Your task to perform on an android device: open chrome privacy settings Image 0: 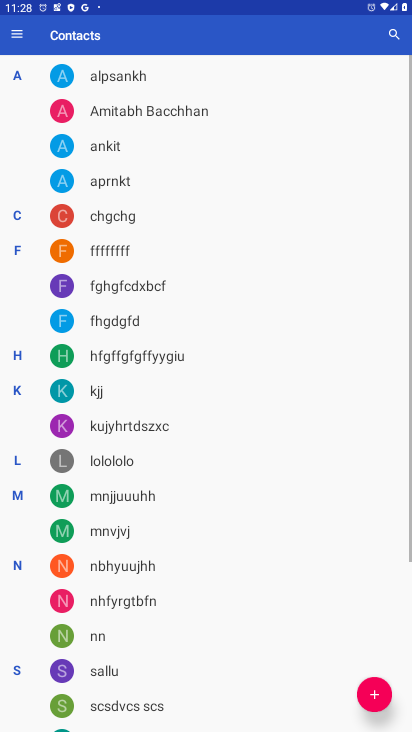
Step 0: drag from (218, 693) to (248, 655)
Your task to perform on an android device: open chrome privacy settings Image 1: 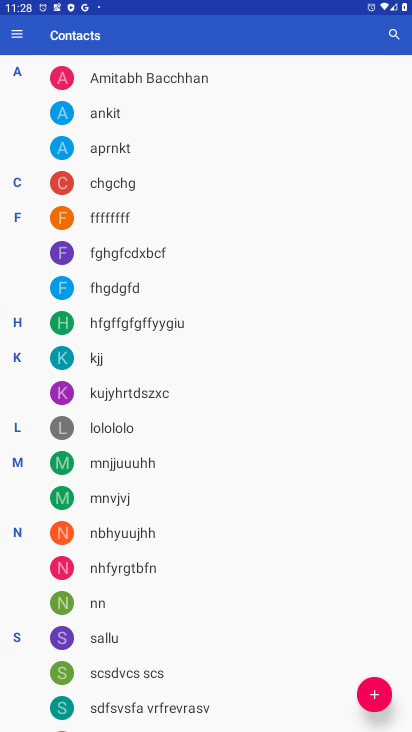
Step 1: press home button
Your task to perform on an android device: open chrome privacy settings Image 2: 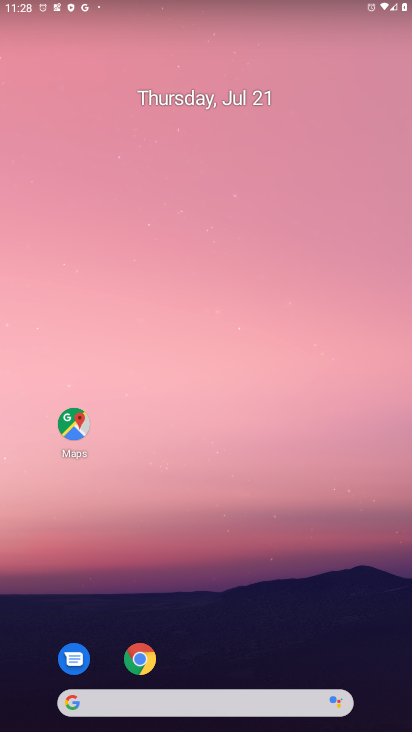
Step 2: click (141, 659)
Your task to perform on an android device: open chrome privacy settings Image 3: 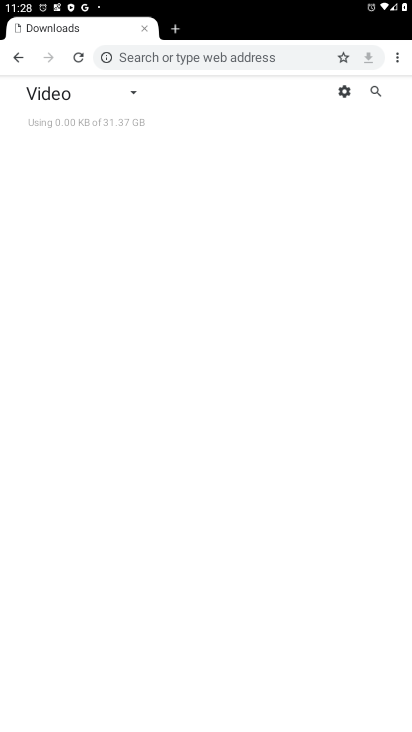
Step 3: click (399, 58)
Your task to perform on an android device: open chrome privacy settings Image 4: 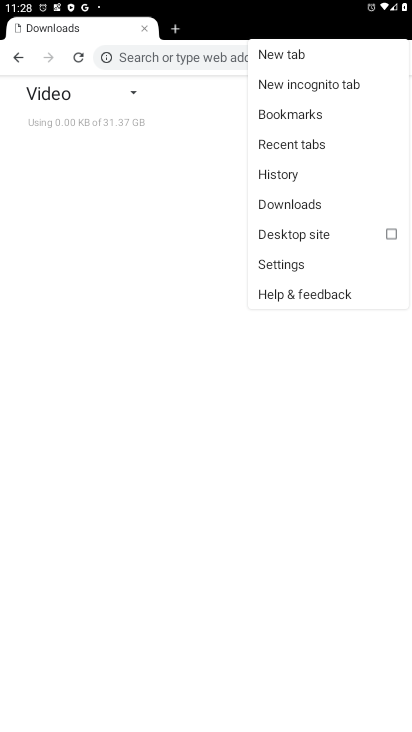
Step 4: click (291, 263)
Your task to perform on an android device: open chrome privacy settings Image 5: 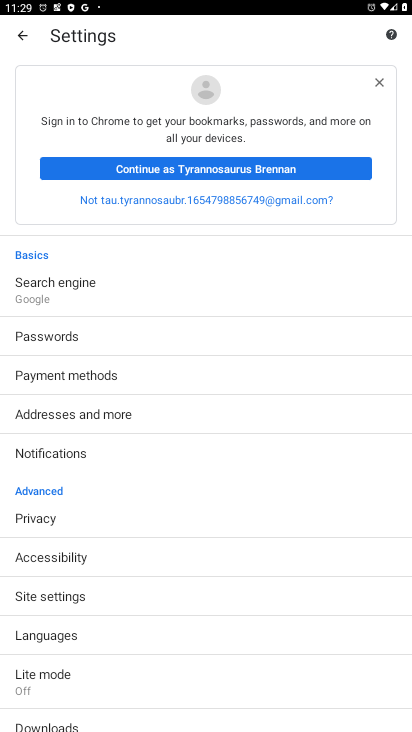
Step 5: click (42, 518)
Your task to perform on an android device: open chrome privacy settings Image 6: 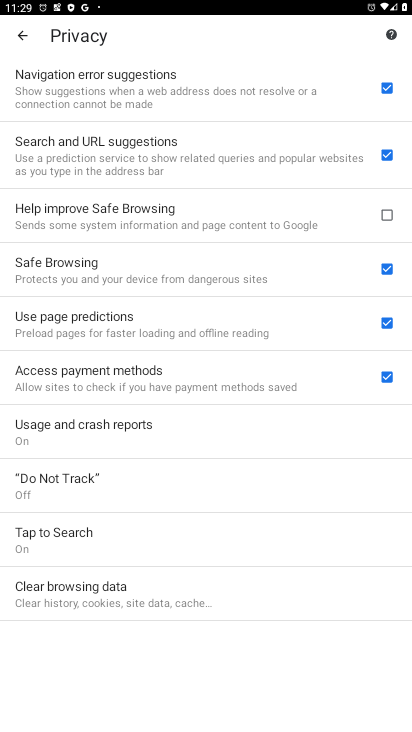
Step 6: task complete